Your task to perform on an android device: change notifications settings Image 0: 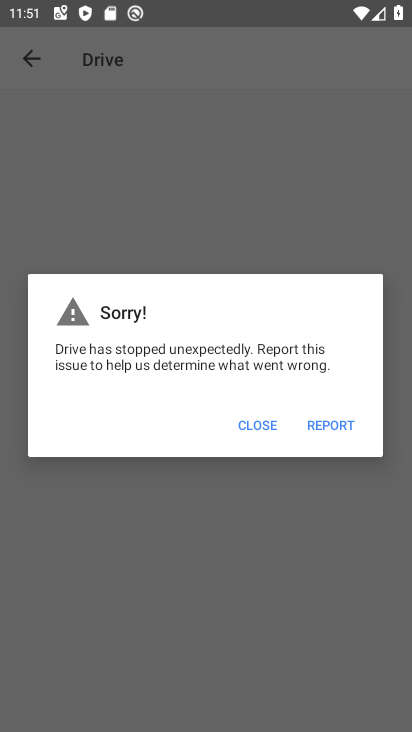
Step 0: press home button
Your task to perform on an android device: change notifications settings Image 1: 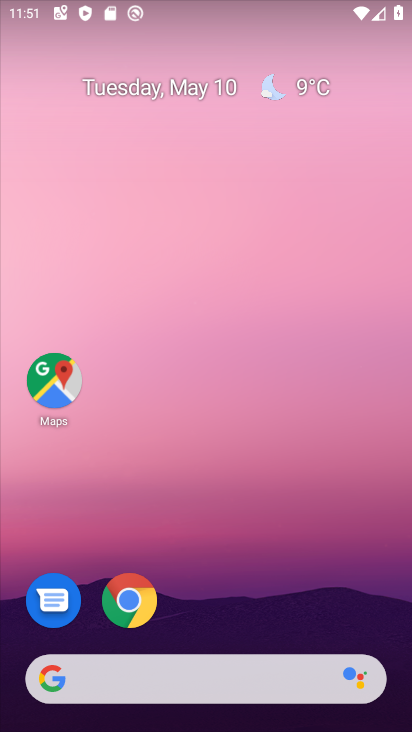
Step 1: drag from (236, 700) to (306, 27)
Your task to perform on an android device: change notifications settings Image 2: 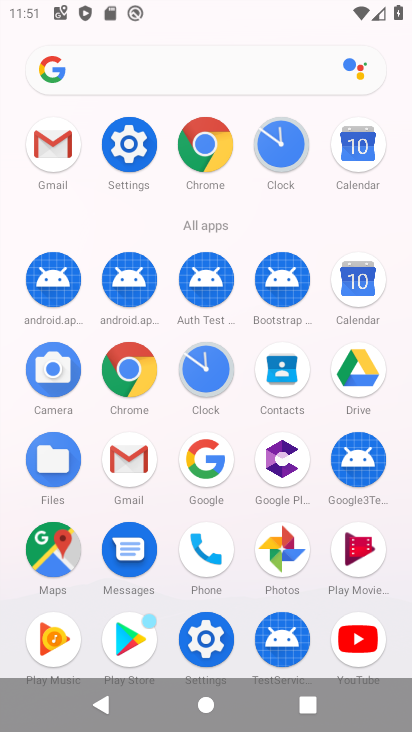
Step 2: click (133, 152)
Your task to perform on an android device: change notifications settings Image 3: 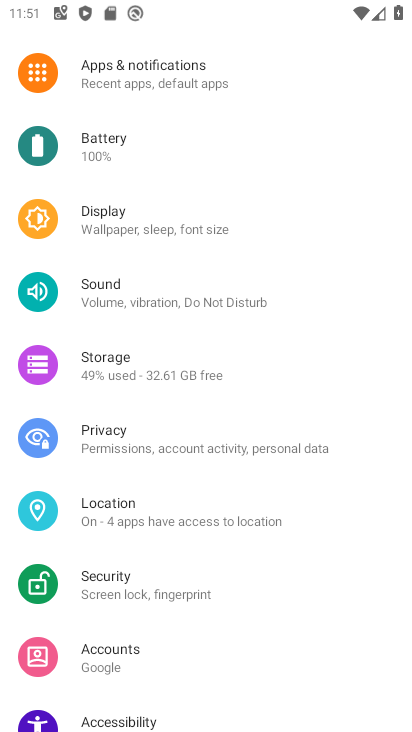
Step 3: click (233, 80)
Your task to perform on an android device: change notifications settings Image 4: 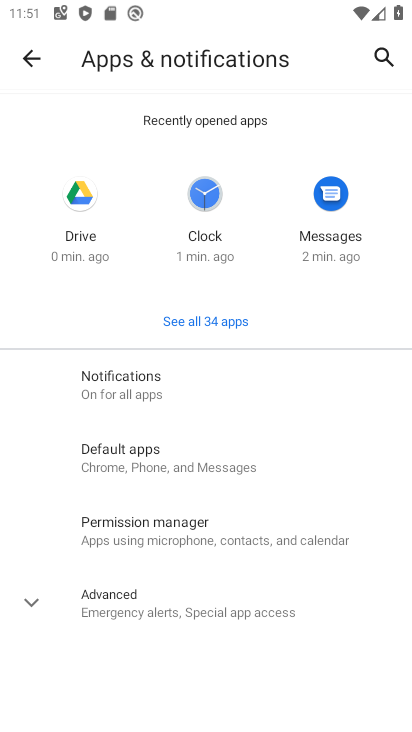
Step 4: click (146, 385)
Your task to perform on an android device: change notifications settings Image 5: 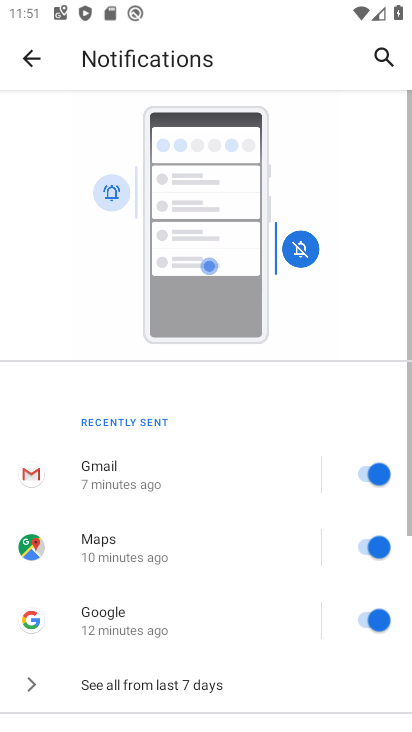
Step 5: click (364, 464)
Your task to perform on an android device: change notifications settings Image 6: 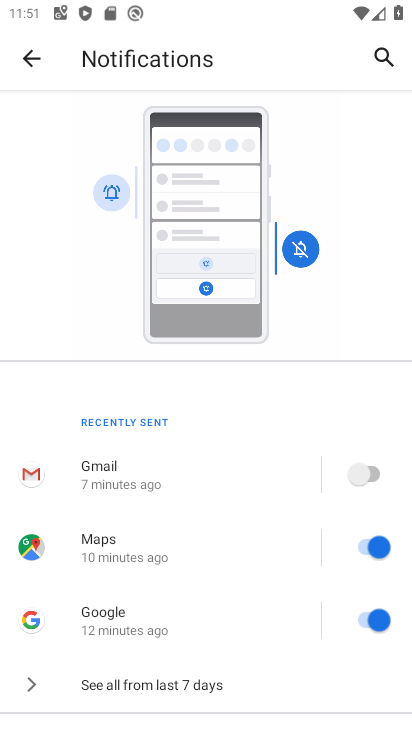
Step 6: task complete